Your task to perform on an android device: open app "Adobe Acrobat Reader" Image 0: 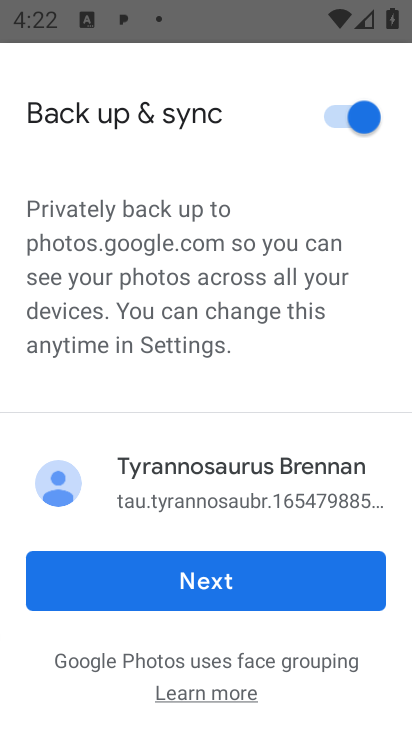
Step 0: press home button
Your task to perform on an android device: open app "Adobe Acrobat Reader" Image 1: 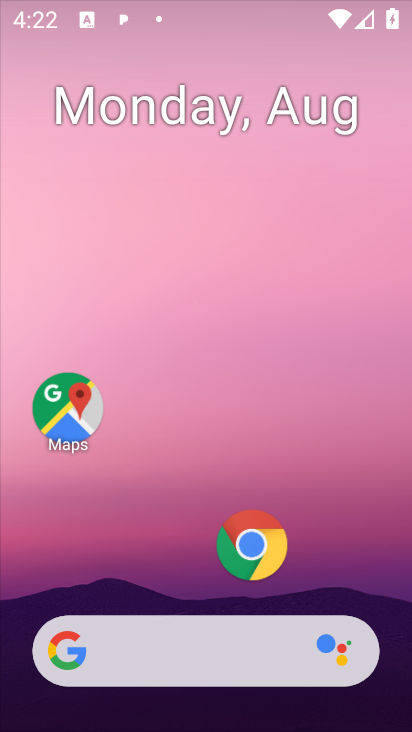
Step 1: drag from (155, 572) to (258, 11)
Your task to perform on an android device: open app "Adobe Acrobat Reader" Image 2: 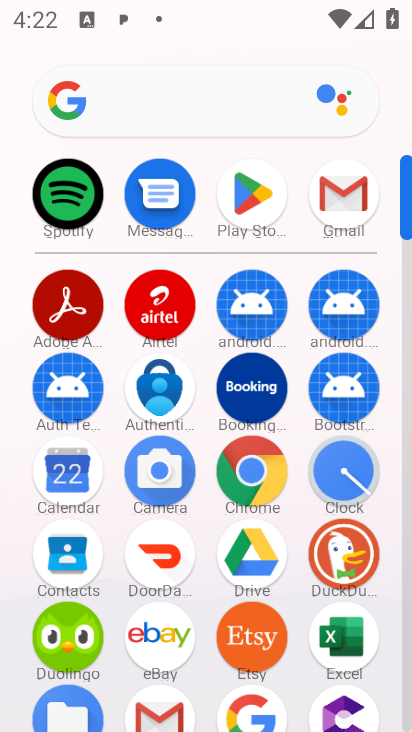
Step 2: click (246, 205)
Your task to perform on an android device: open app "Adobe Acrobat Reader" Image 3: 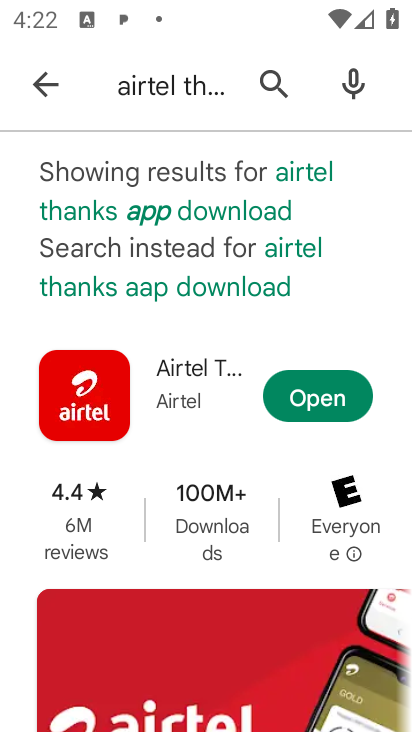
Step 3: click (277, 86)
Your task to perform on an android device: open app "Adobe Acrobat Reader" Image 4: 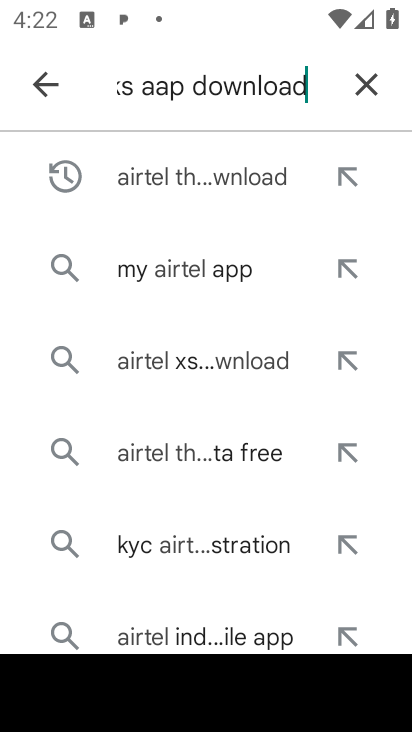
Step 4: click (357, 85)
Your task to perform on an android device: open app "Adobe Acrobat Reader" Image 5: 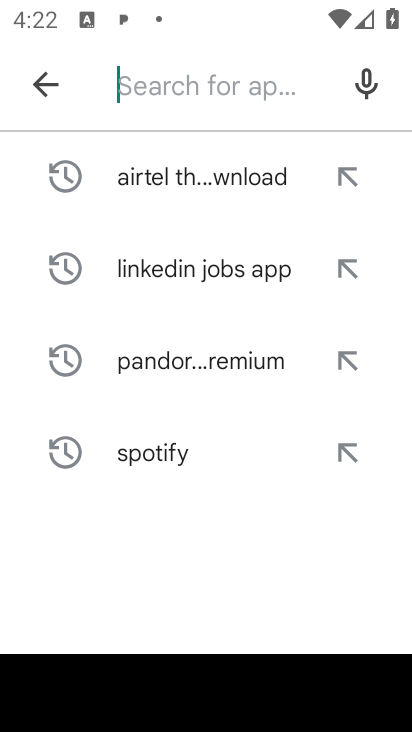
Step 5: click (207, 86)
Your task to perform on an android device: open app "Adobe Acrobat Reader" Image 6: 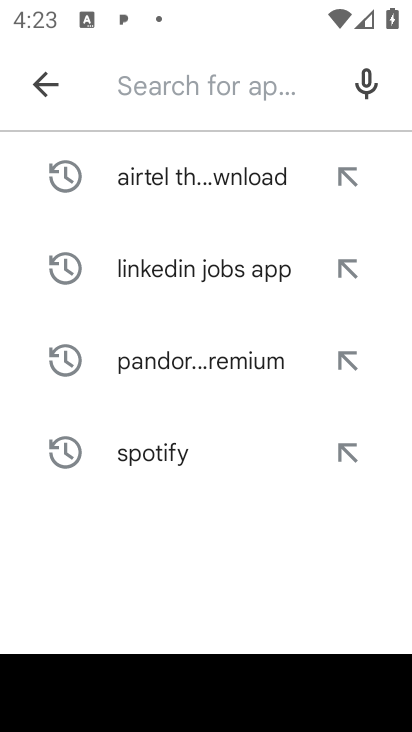
Step 6: click (159, 72)
Your task to perform on an android device: open app "Adobe Acrobat Reader" Image 7: 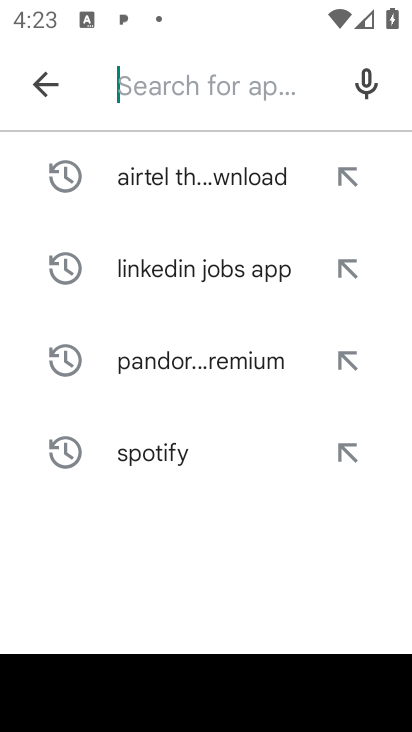
Step 7: type "Adobe Acrobat Reader"
Your task to perform on an android device: open app "Adobe Acrobat Reader" Image 8: 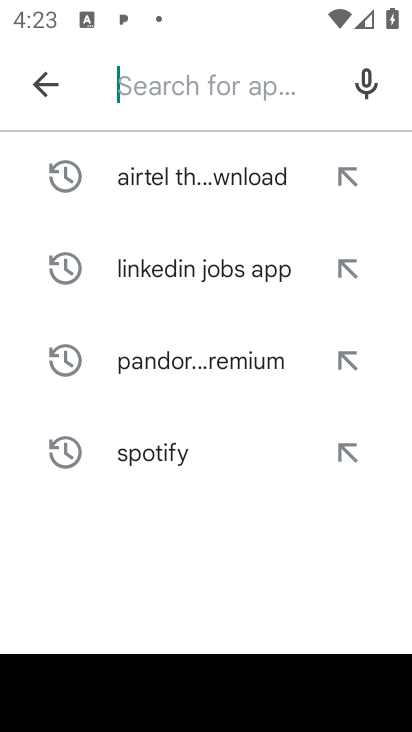
Step 8: click (259, 545)
Your task to perform on an android device: open app "Adobe Acrobat Reader" Image 9: 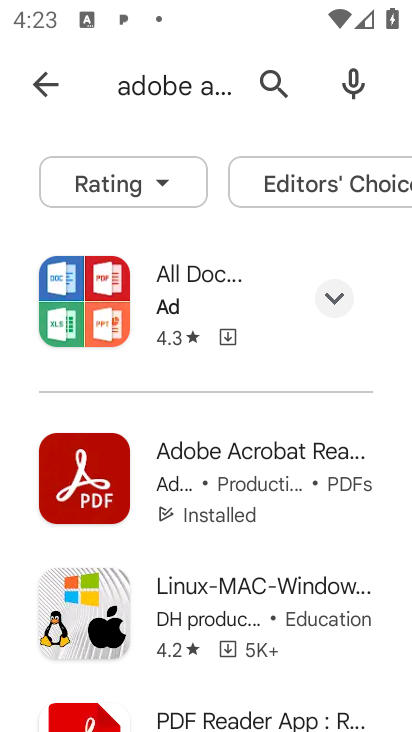
Step 9: click (232, 512)
Your task to perform on an android device: open app "Adobe Acrobat Reader" Image 10: 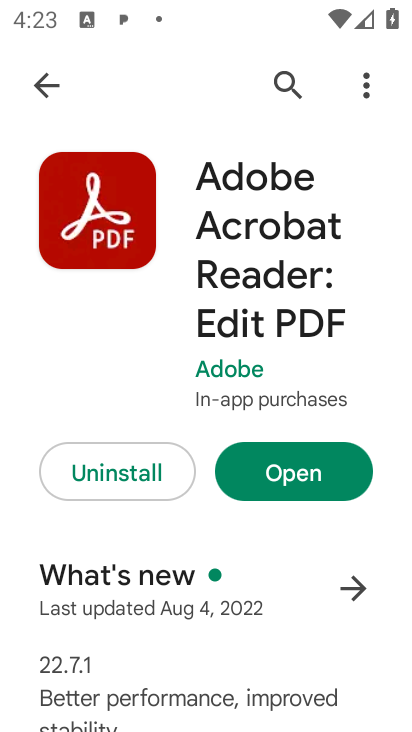
Step 10: click (278, 483)
Your task to perform on an android device: open app "Adobe Acrobat Reader" Image 11: 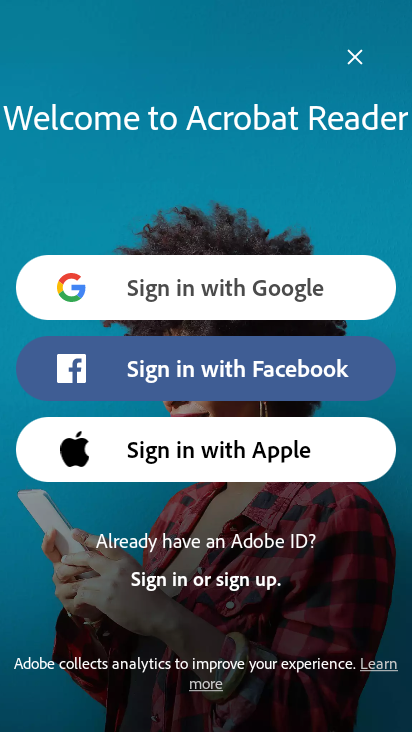
Step 11: task complete